Your task to perform on an android device: turn off location Image 0: 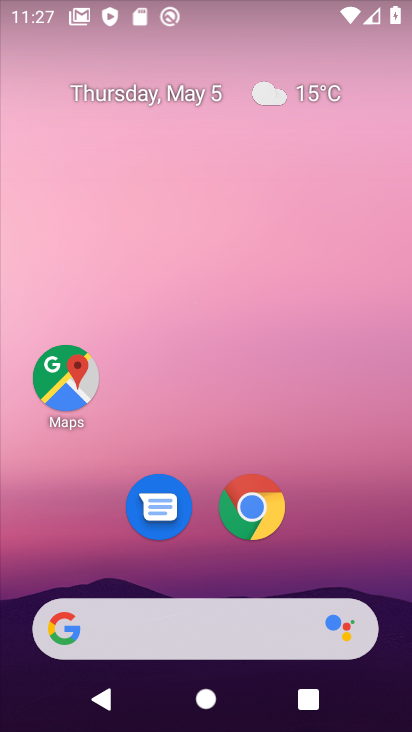
Step 0: click (296, 511)
Your task to perform on an android device: turn off location Image 1: 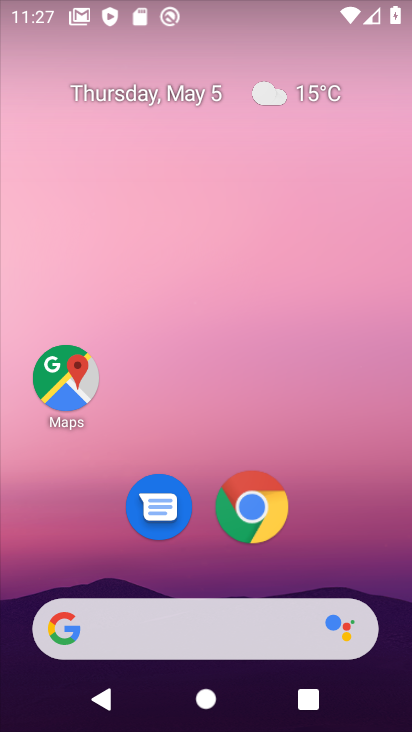
Step 1: drag from (334, 511) to (199, 57)
Your task to perform on an android device: turn off location Image 2: 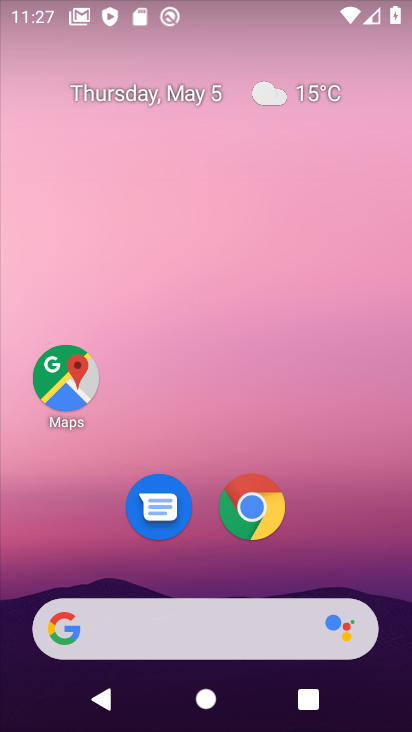
Step 2: drag from (333, 525) to (281, 38)
Your task to perform on an android device: turn off location Image 3: 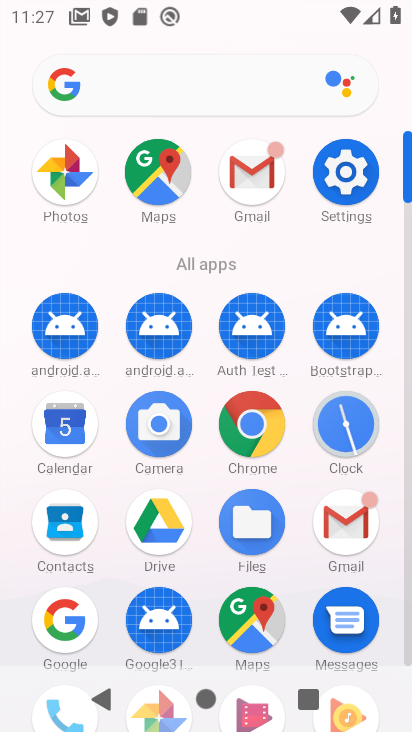
Step 3: click (342, 178)
Your task to perform on an android device: turn off location Image 4: 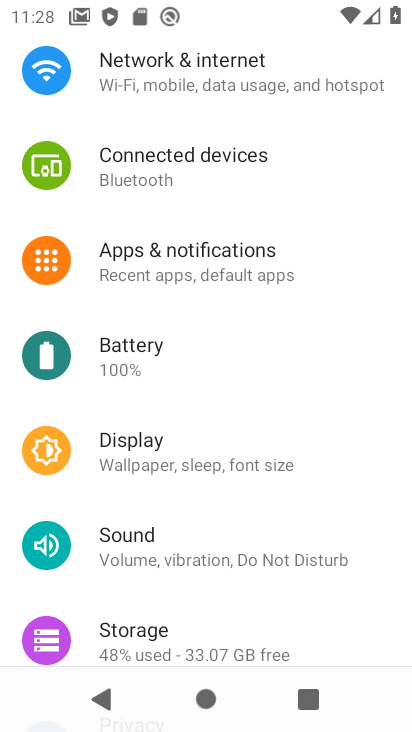
Step 4: drag from (217, 514) to (165, 130)
Your task to perform on an android device: turn off location Image 5: 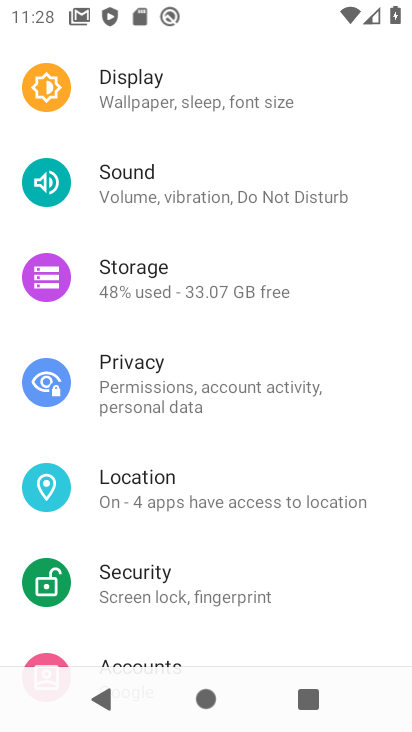
Step 5: drag from (165, 517) to (151, 305)
Your task to perform on an android device: turn off location Image 6: 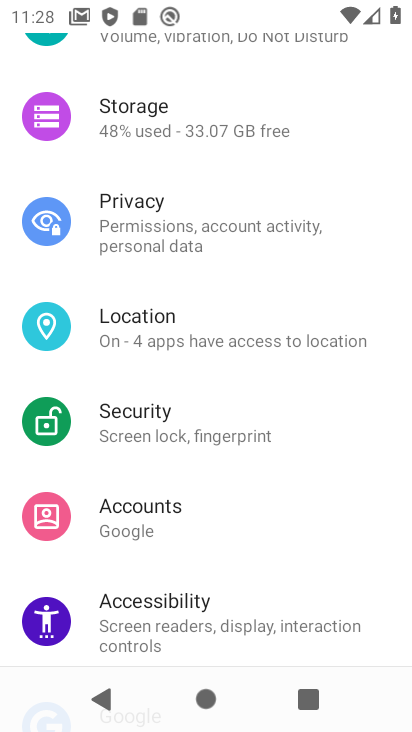
Step 6: click (143, 311)
Your task to perform on an android device: turn off location Image 7: 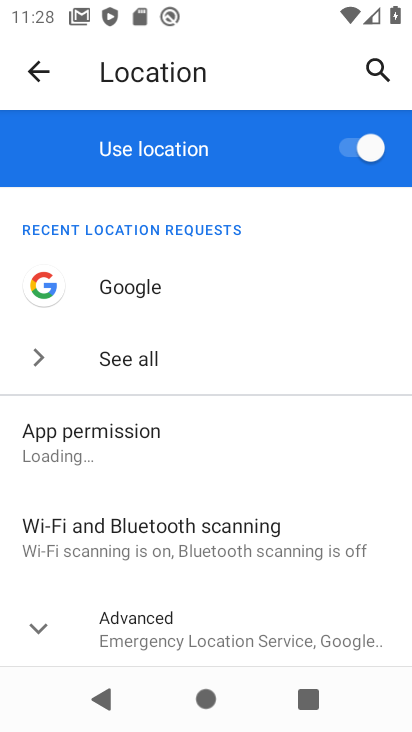
Step 7: click (362, 147)
Your task to perform on an android device: turn off location Image 8: 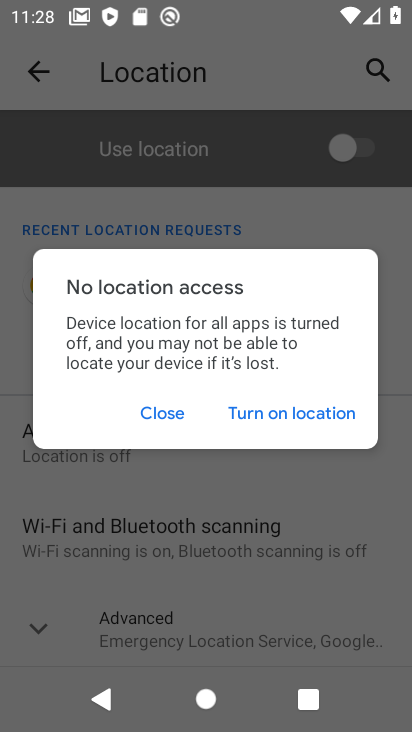
Step 8: click (164, 415)
Your task to perform on an android device: turn off location Image 9: 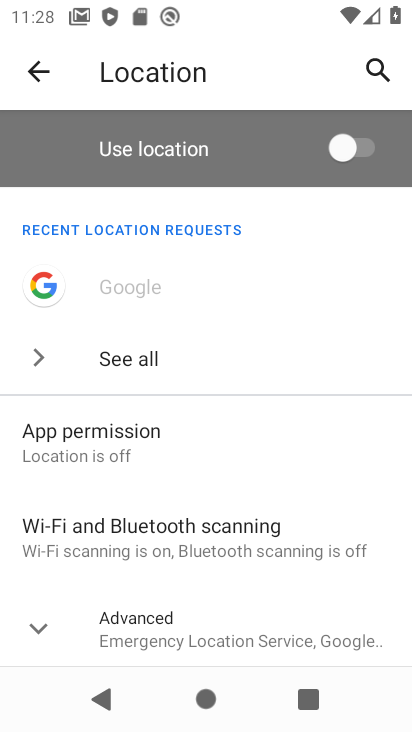
Step 9: task complete